Your task to perform on an android device: open app "Cash App" (install if not already installed) Image 0: 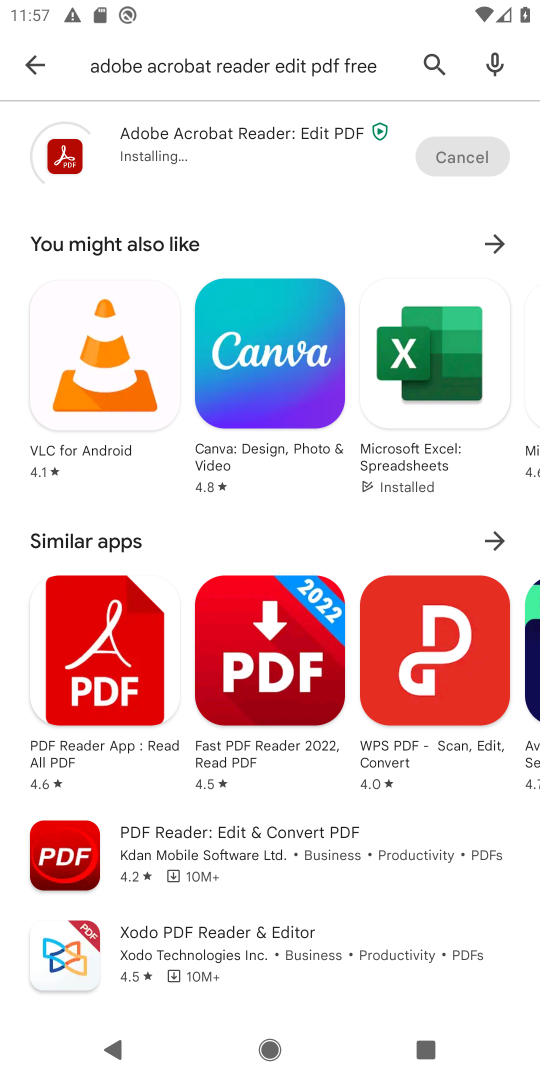
Step 0: click (37, 55)
Your task to perform on an android device: open app "Cash App" (install if not already installed) Image 1: 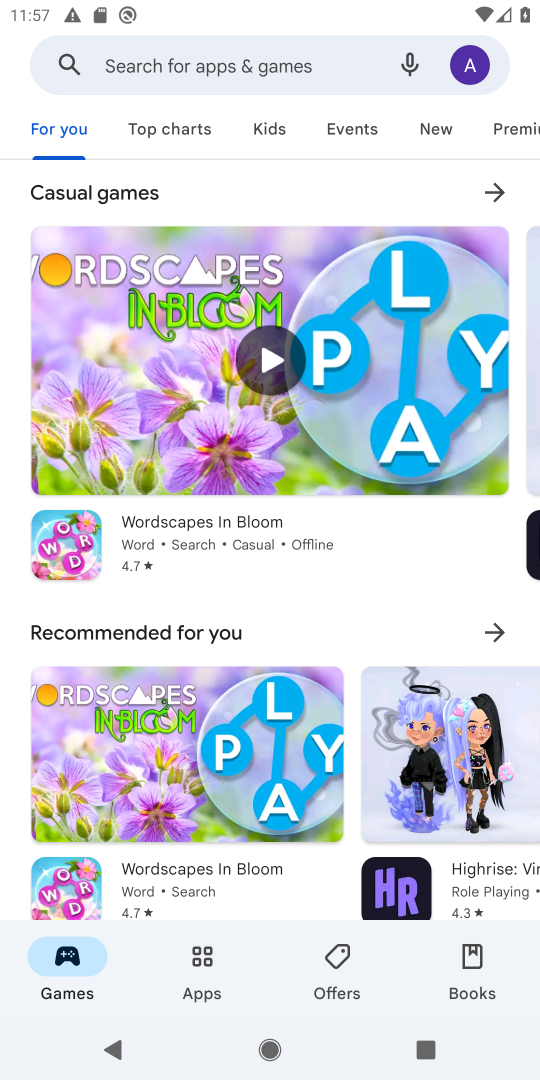
Step 1: click (236, 51)
Your task to perform on an android device: open app "Cash App" (install if not already installed) Image 2: 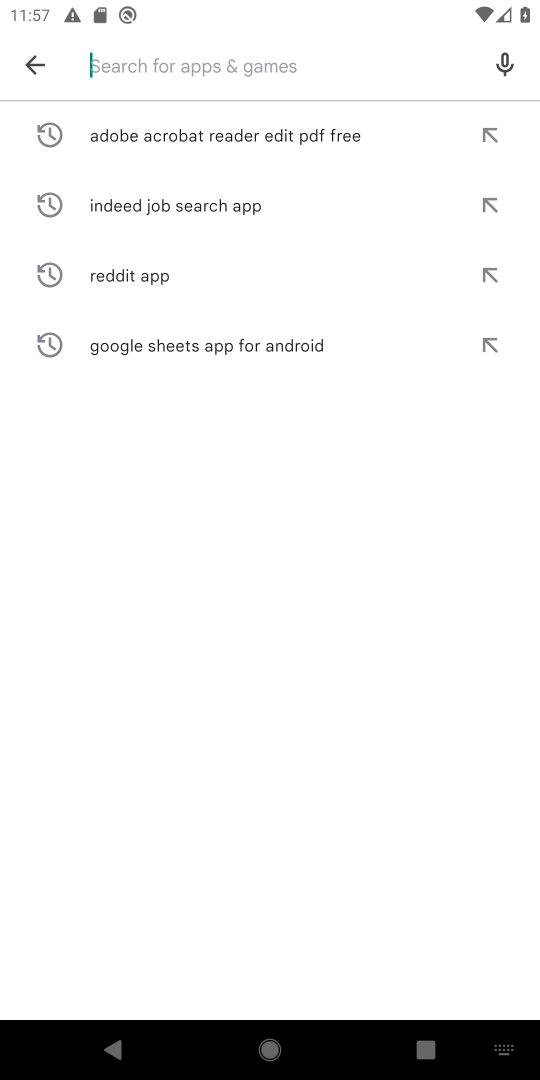
Step 2: click (243, 45)
Your task to perform on an android device: open app "Cash App" (install if not already installed) Image 3: 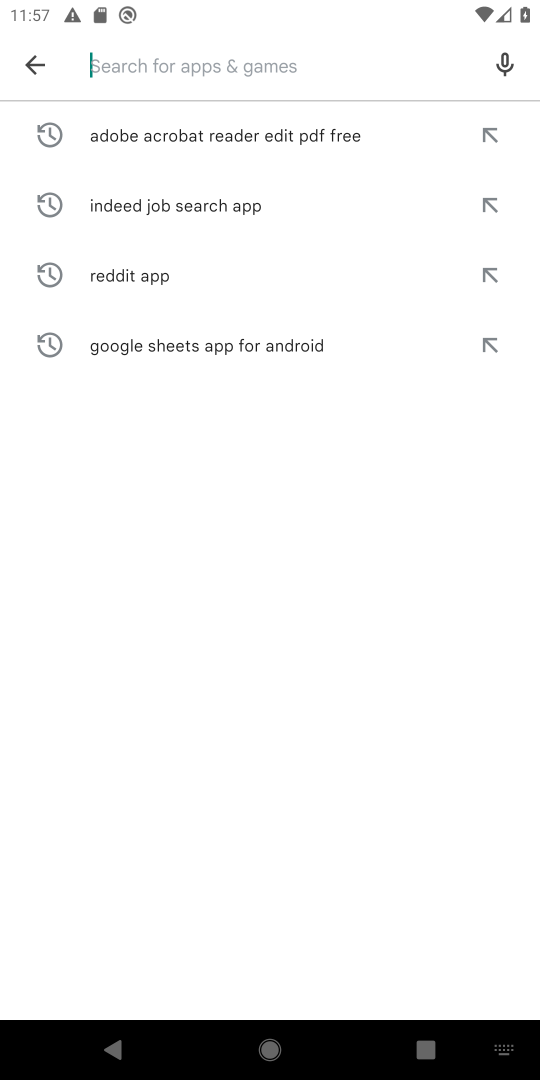
Step 3: type "Cash App "
Your task to perform on an android device: open app "Cash App" (install if not already installed) Image 4: 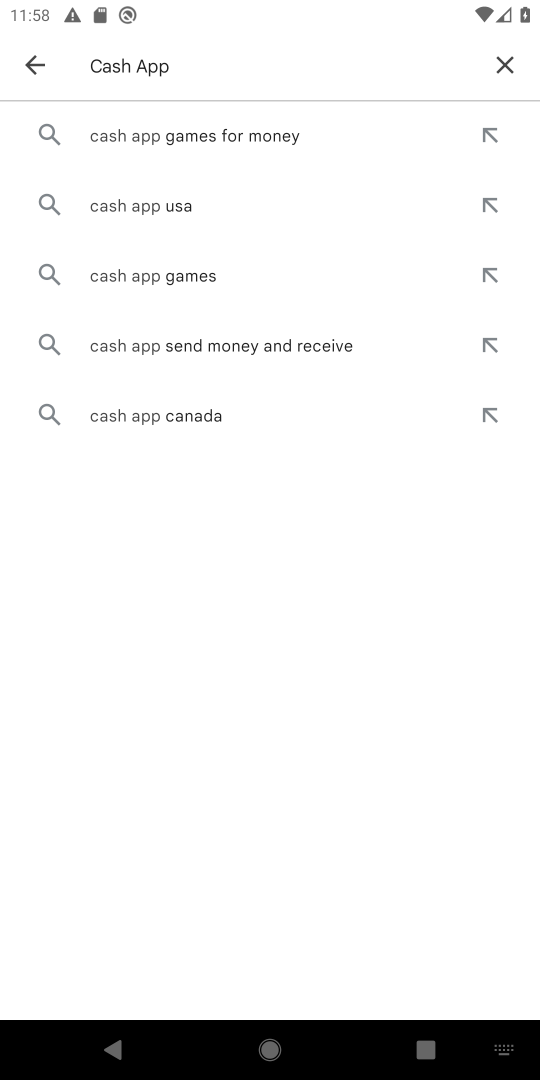
Step 4: click (180, 133)
Your task to perform on an android device: open app "Cash App" (install if not already installed) Image 5: 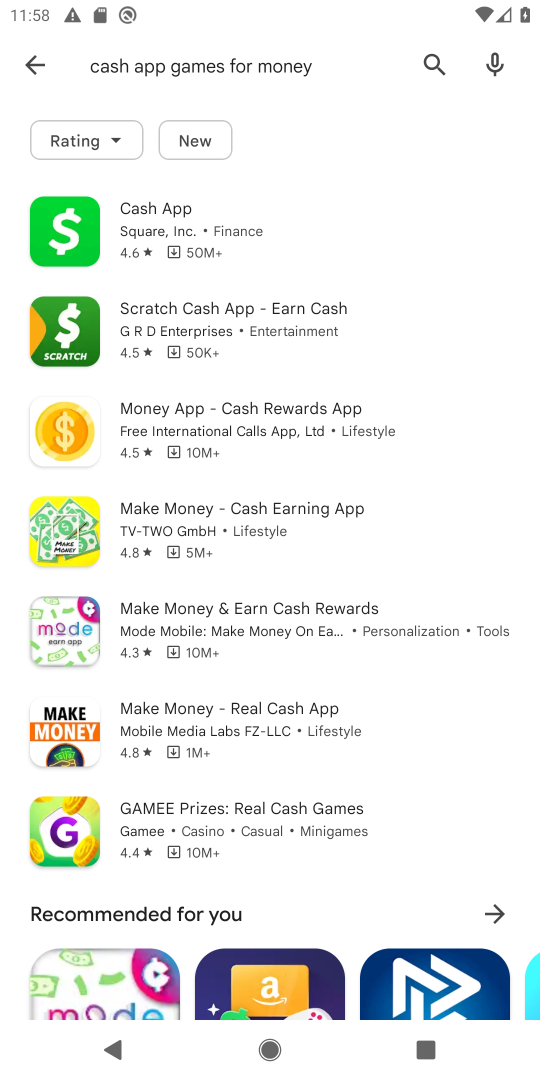
Step 5: click (156, 197)
Your task to perform on an android device: open app "Cash App" (install if not already installed) Image 6: 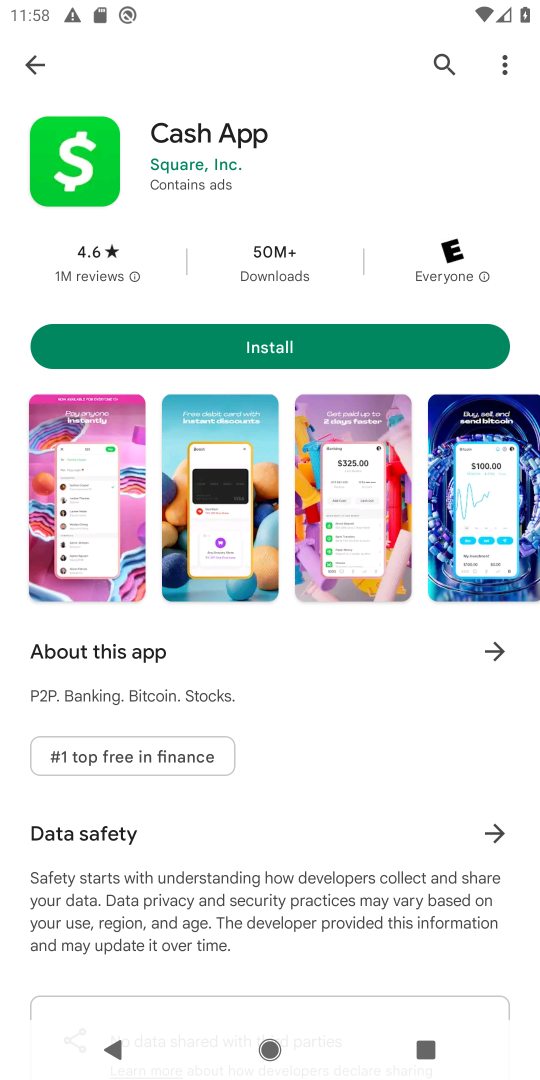
Step 6: task complete